Your task to perform on an android device: Go to wifi settings Image 0: 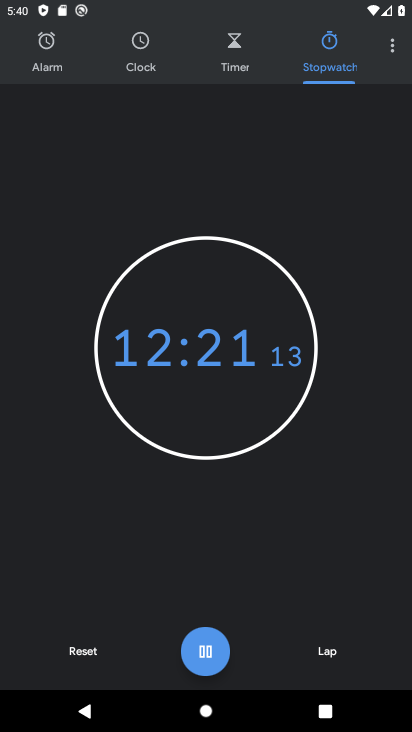
Step 0: press home button
Your task to perform on an android device: Go to wifi settings Image 1: 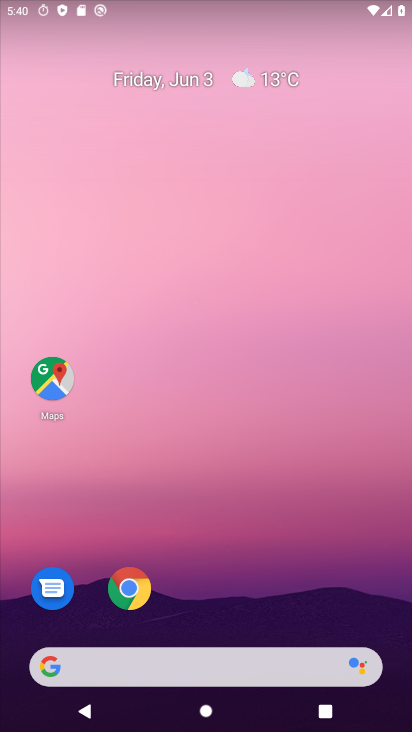
Step 1: drag from (262, 543) to (207, 149)
Your task to perform on an android device: Go to wifi settings Image 2: 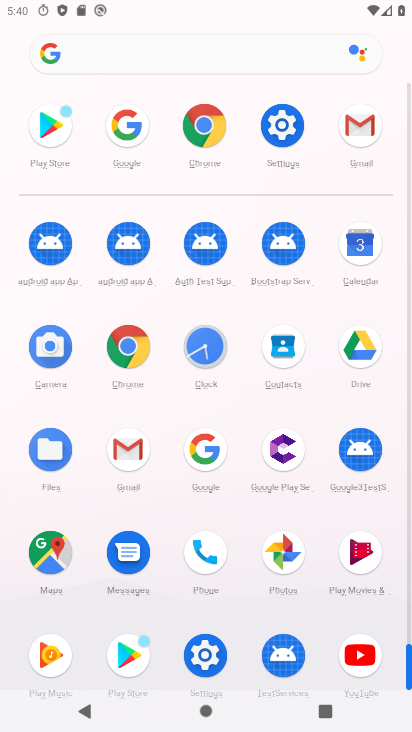
Step 2: click (284, 139)
Your task to perform on an android device: Go to wifi settings Image 3: 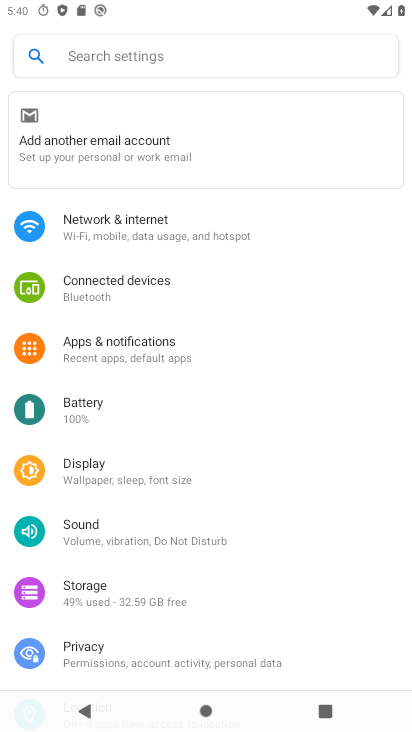
Step 3: click (201, 239)
Your task to perform on an android device: Go to wifi settings Image 4: 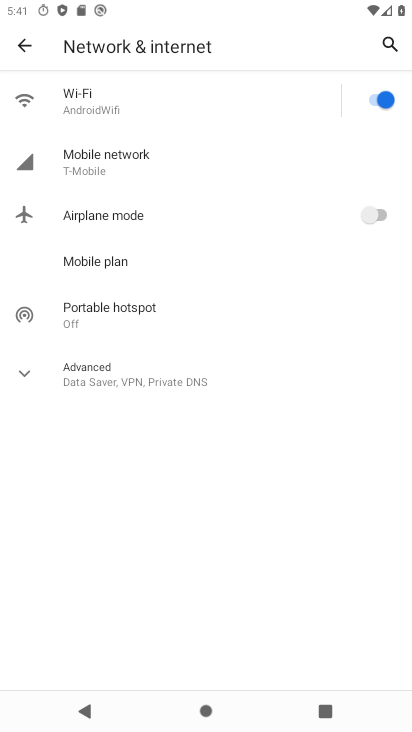
Step 4: click (198, 243)
Your task to perform on an android device: Go to wifi settings Image 5: 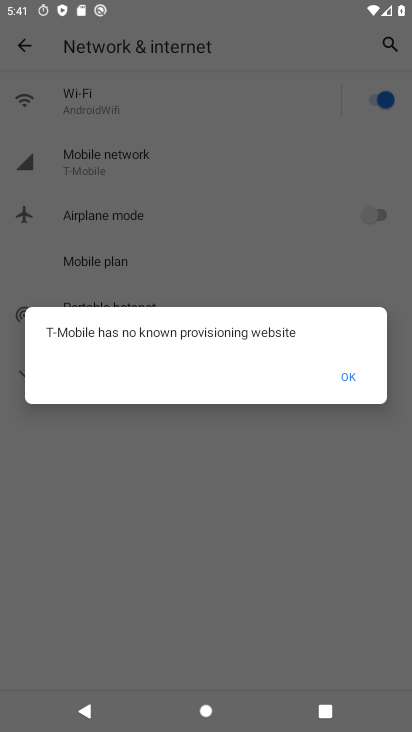
Step 5: click (355, 386)
Your task to perform on an android device: Go to wifi settings Image 6: 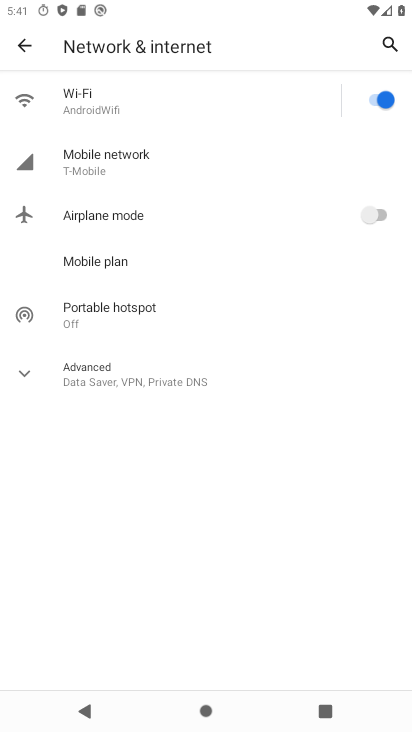
Step 6: click (154, 102)
Your task to perform on an android device: Go to wifi settings Image 7: 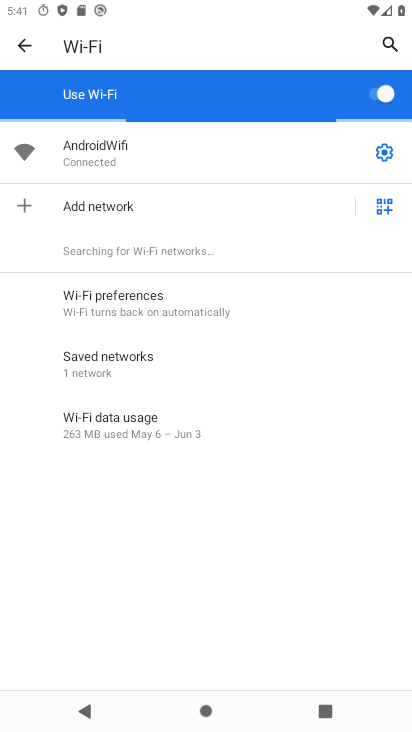
Step 7: task complete